Your task to perform on an android device: turn notification dots on Image 0: 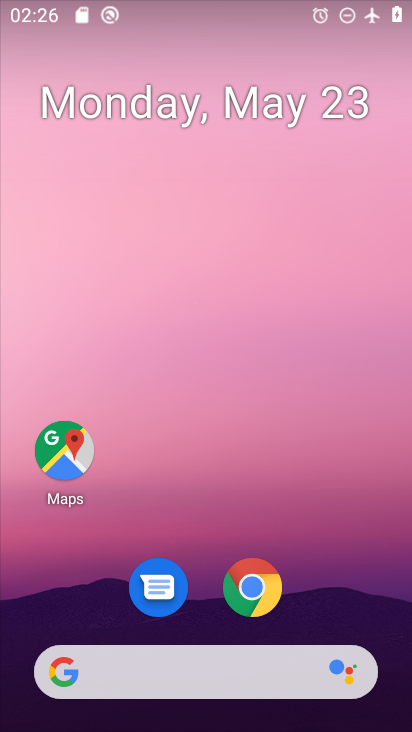
Step 0: drag from (363, 593) to (299, 84)
Your task to perform on an android device: turn notification dots on Image 1: 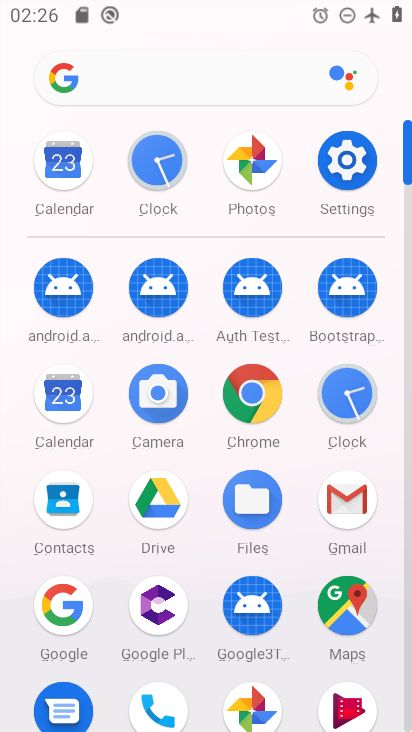
Step 1: click (309, 189)
Your task to perform on an android device: turn notification dots on Image 2: 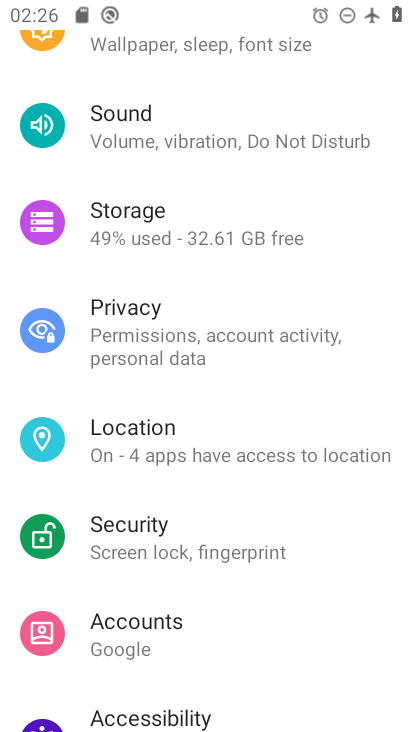
Step 2: click (343, 186)
Your task to perform on an android device: turn notification dots on Image 3: 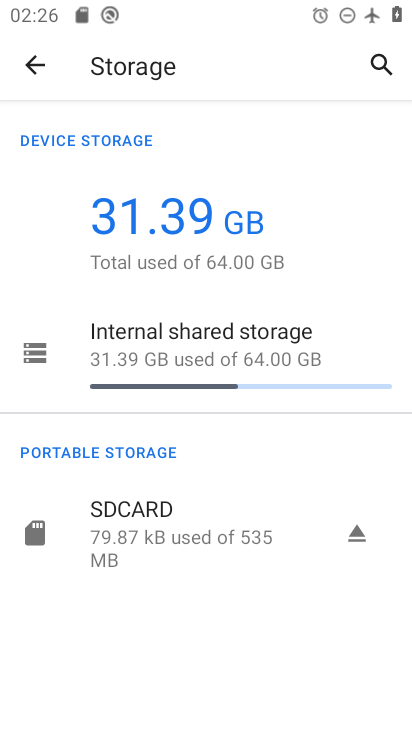
Step 3: drag from (153, 448) to (153, 363)
Your task to perform on an android device: turn notification dots on Image 4: 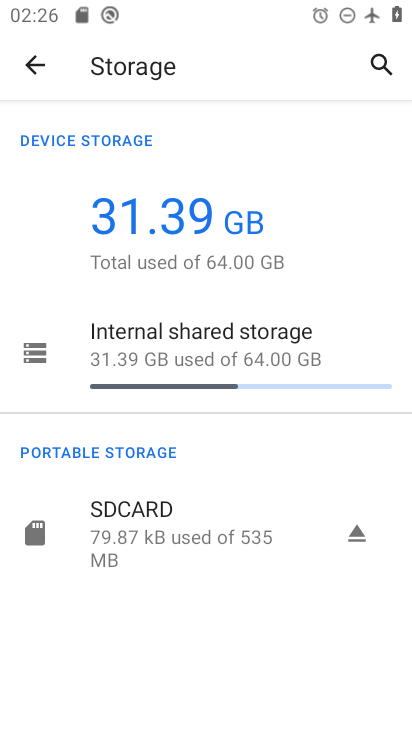
Step 4: click (31, 72)
Your task to perform on an android device: turn notification dots on Image 5: 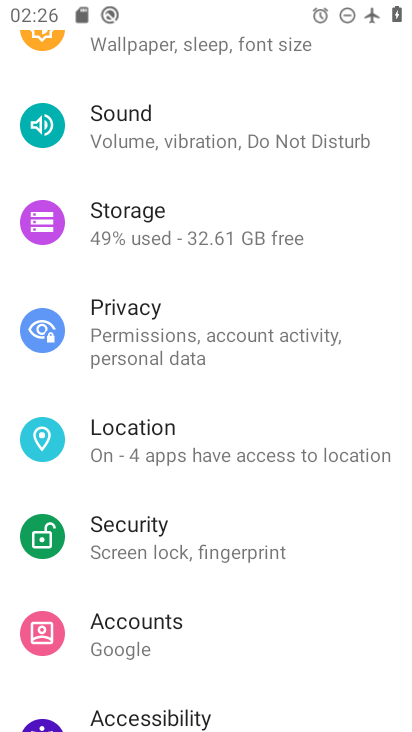
Step 5: drag from (195, 533) to (195, 335)
Your task to perform on an android device: turn notification dots on Image 6: 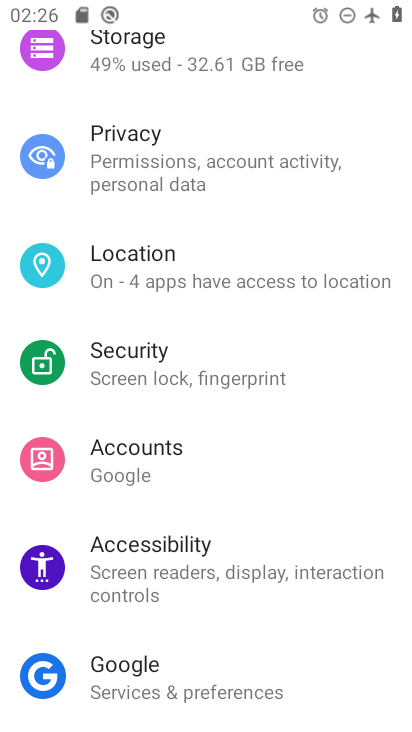
Step 6: drag from (157, 401) to (160, 583)
Your task to perform on an android device: turn notification dots on Image 7: 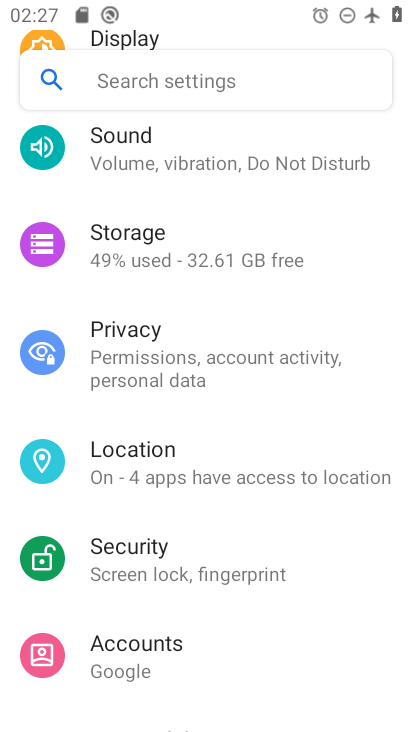
Step 7: drag from (191, 201) to (160, 477)
Your task to perform on an android device: turn notification dots on Image 8: 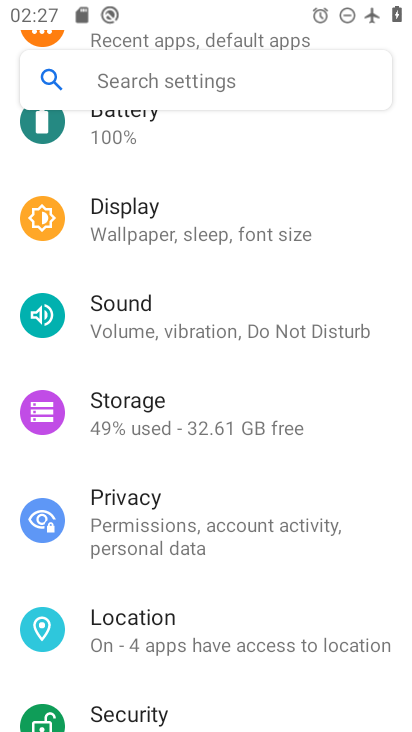
Step 8: drag from (190, 142) to (199, 395)
Your task to perform on an android device: turn notification dots on Image 9: 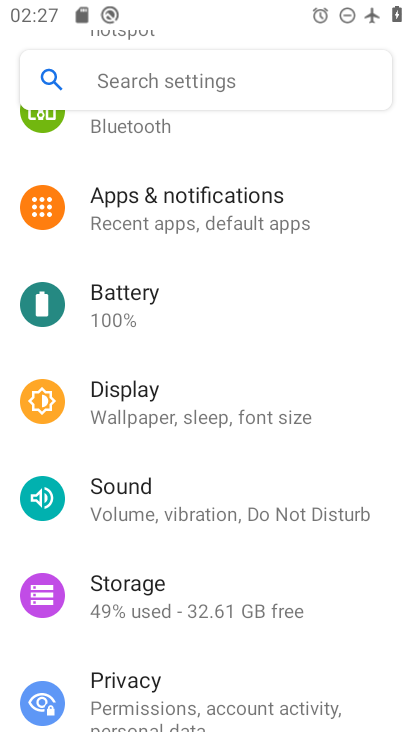
Step 9: click (199, 395)
Your task to perform on an android device: turn notification dots on Image 10: 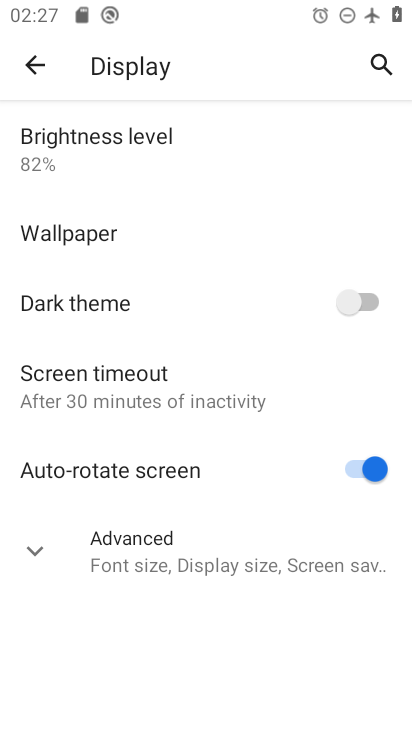
Step 10: click (21, 56)
Your task to perform on an android device: turn notification dots on Image 11: 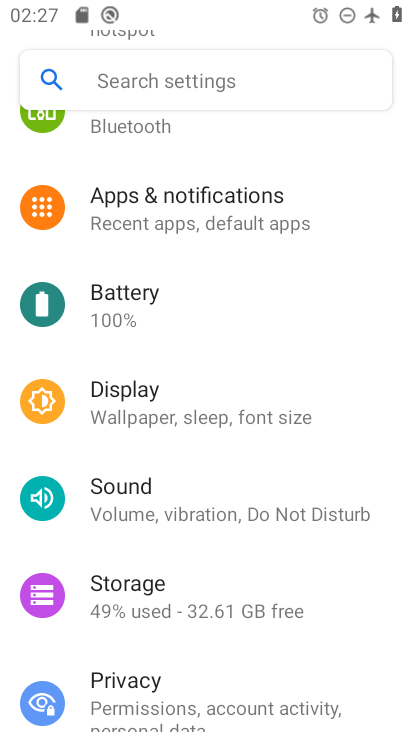
Step 11: click (217, 194)
Your task to perform on an android device: turn notification dots on Image 12: 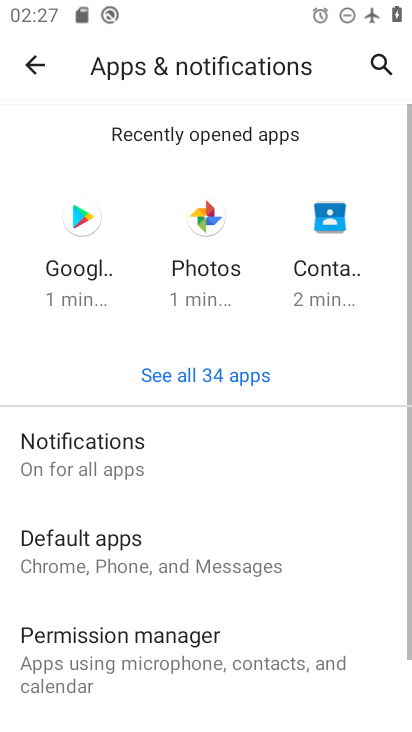
Step 12: drag from (212, 463) to (214, 135)
Your task to perform on an android device: turn notification dots on Image 13: 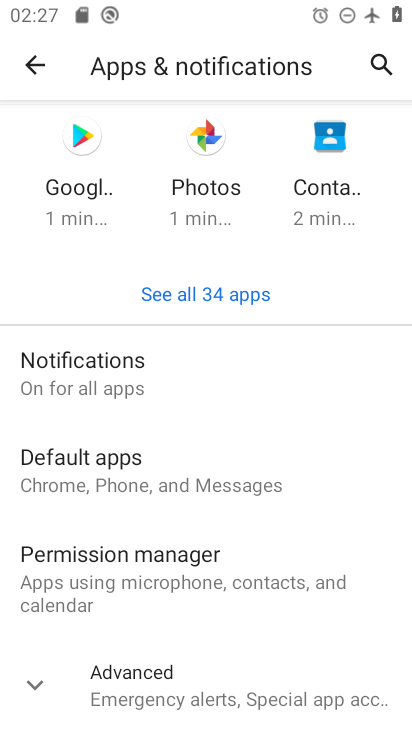
Step 13: click (162, 653)
Your task to perform on an android device: turn notification dots on Image 14: 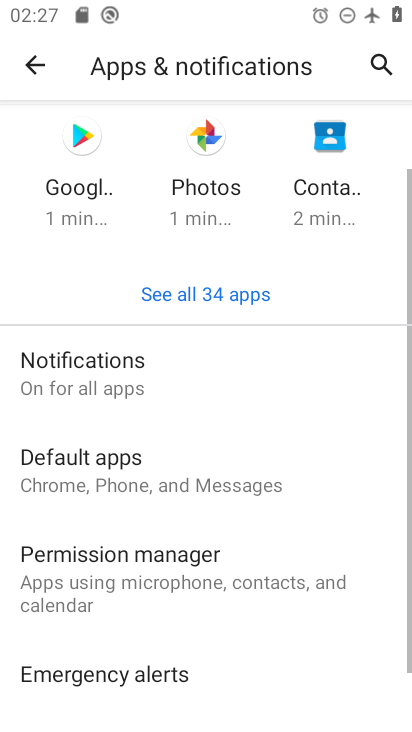
Step 14: drag from (162, 653) to (166, 264)
Your task to perform on an android device: turn notification dots on Image 15: 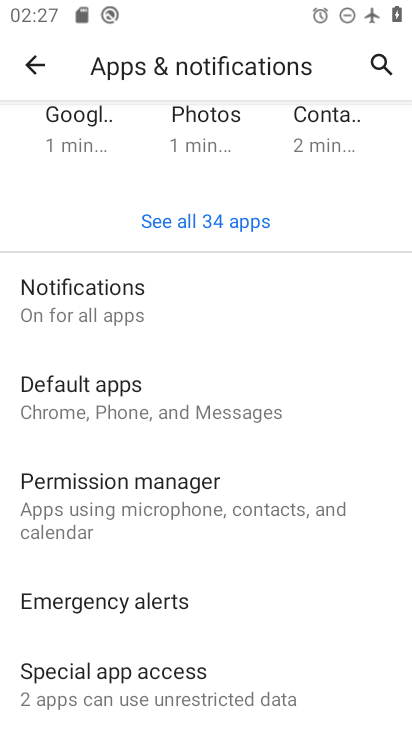
Step 15: click (153, 323)
Your task to perform on an android device: turn notification dots on Image 16: 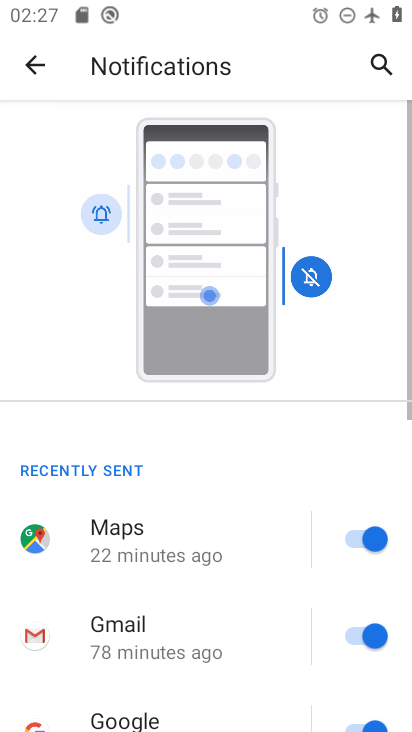
Step 16: drag from (243, 497) to (208, 64)
Your task to perform on an android device: turn notification dots on Image 17: 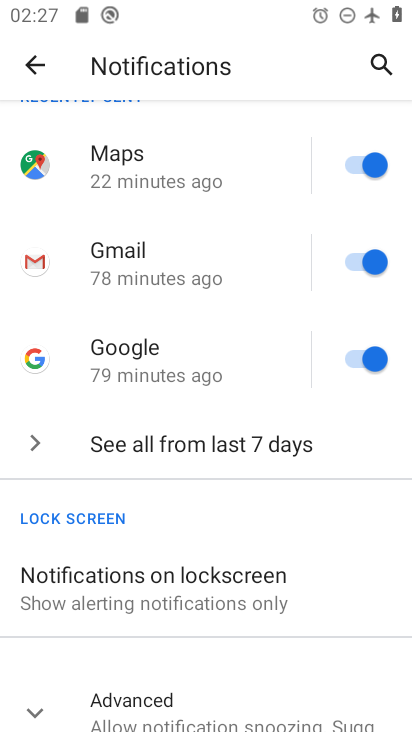
Step 17: click (151, 684)
Your task to perform on an android device: turn notification dots on Image 18: 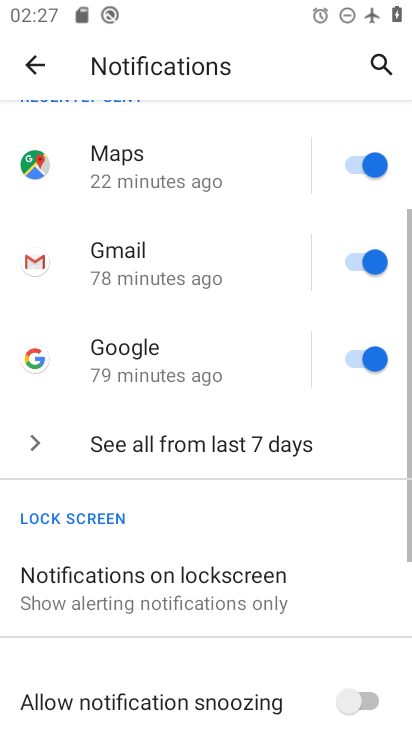
Step 18: drag from (211, 639) to (207, 347)
Your task to perform on an android device: turn notification dots on Image 19: 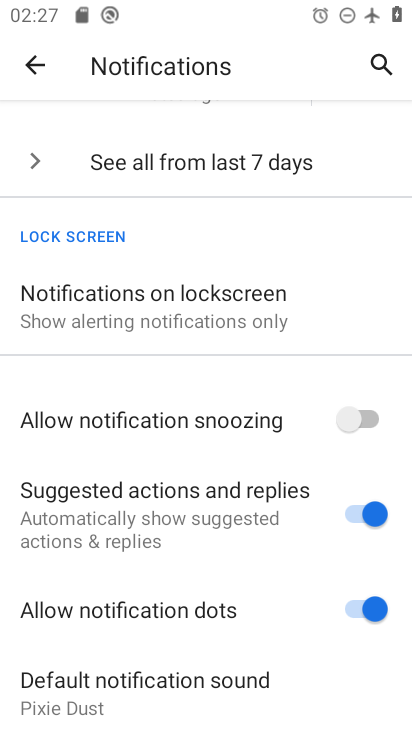
Step 19: click (203, 608)
Your task to perform on an android device: turn notification dots on Image 20: 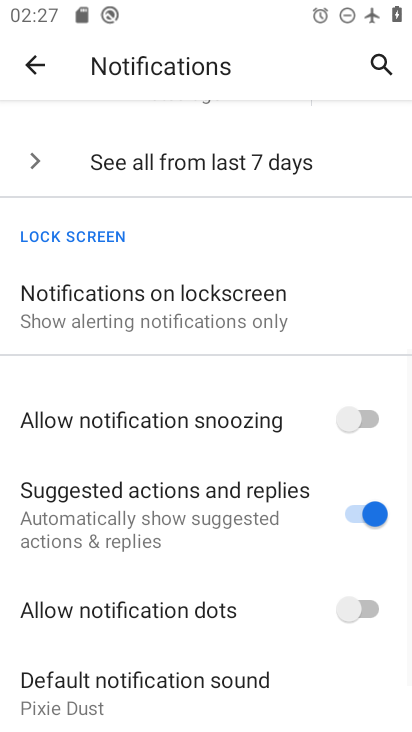
Step 20: task complete